Your task to perform on an android device: turn pop-ups on in chrome Image 0: 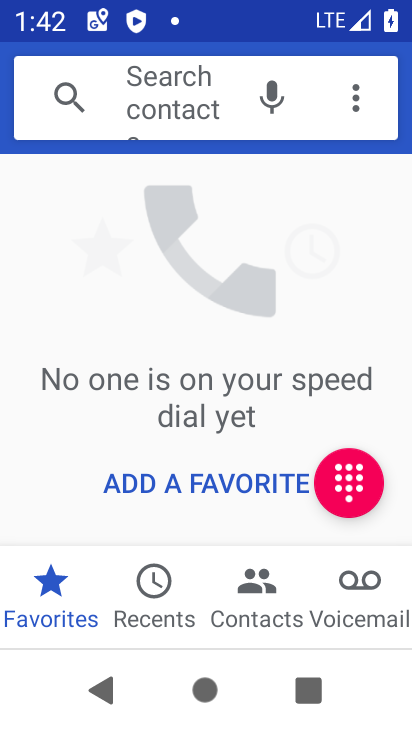
Step 0: press home button
Your task to perform on an android device: turn pop-ups on in chrome Image 1: 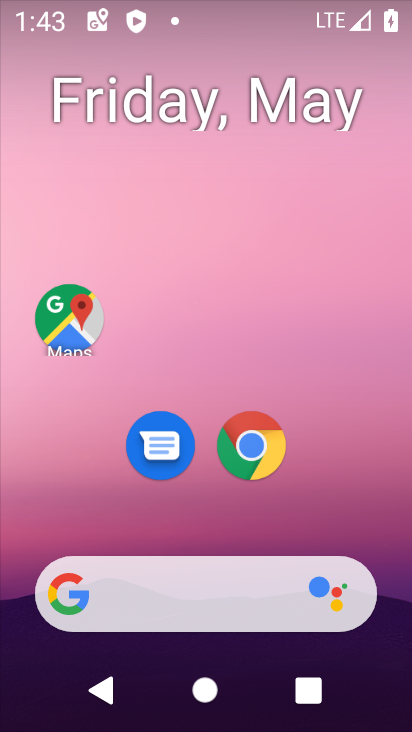
Step 1: click (248, 438)
Your task to perform on an android device: turn pop-ups on in chrome Image 2: 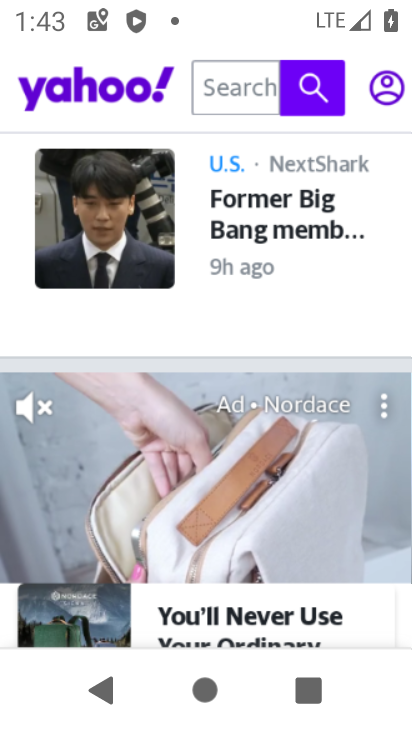
Step 2: drag from (350, 191) to (318, 583)
Your task to perform on an android device: turn pop-ups on in chrome Image 3: 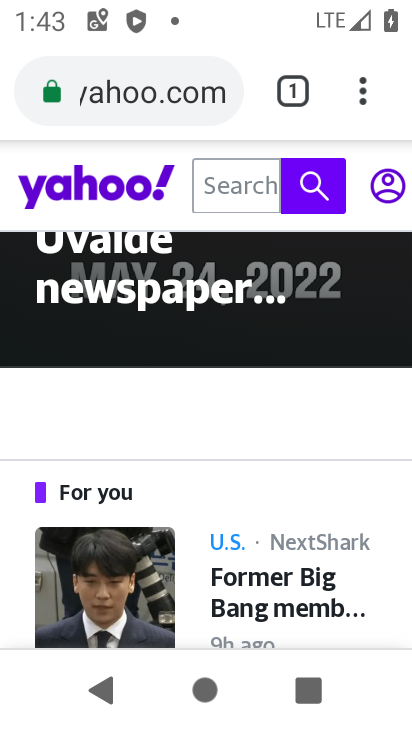
Step 3: click (362, 82)
Your task to perform on an android device: turn pop-ups on in chrome Image 4: 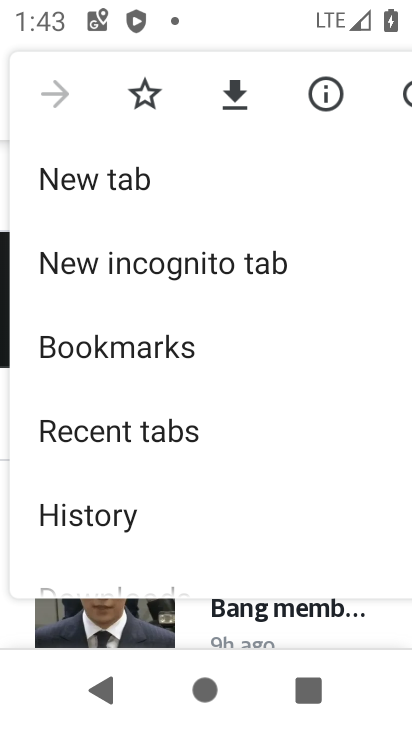
Step 4: drag from (212, 519) to (257, 93)
Your task to perform on an android device: turn pop-ups on in chrome Image 5: 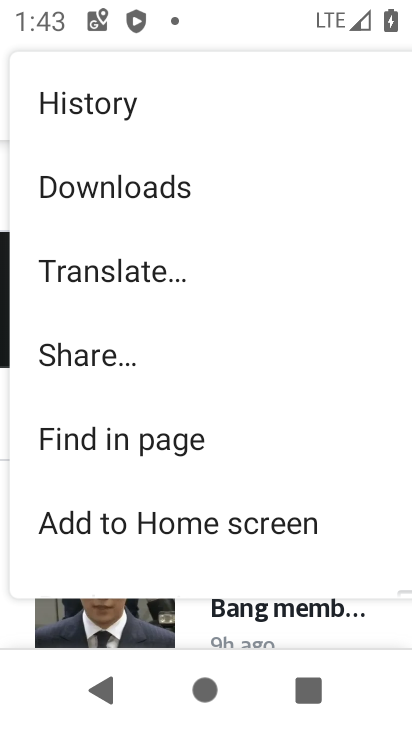
Step 5: drag from (173, 538) to (193, 142)
Your task to perform on an android device: turn pop-ups on in chrome Image 6: 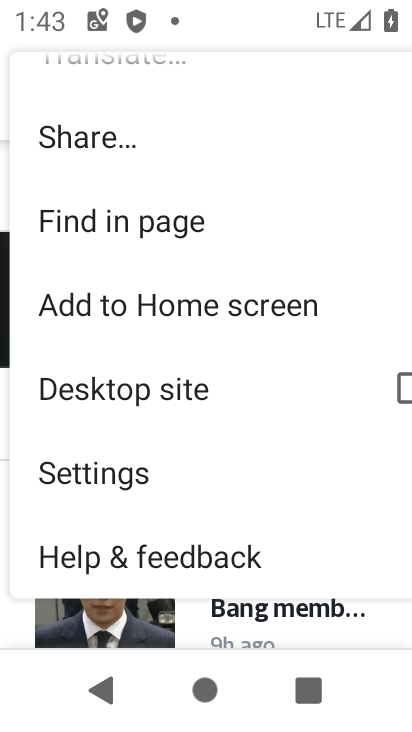
Step 6: click (162, 470)
Your task to perform on an android device: turn pop-ups on in chrome Image 7: 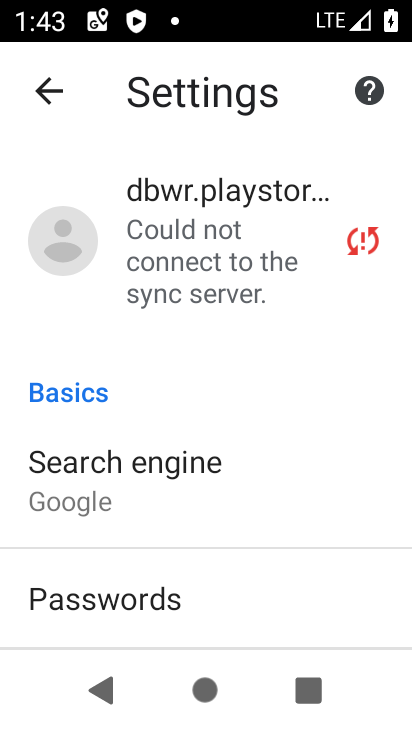
Step 7: drag from (218, 599) to (270, 80)
Your task to perform on an android device: turn pop-ups on in chrome Image 8: 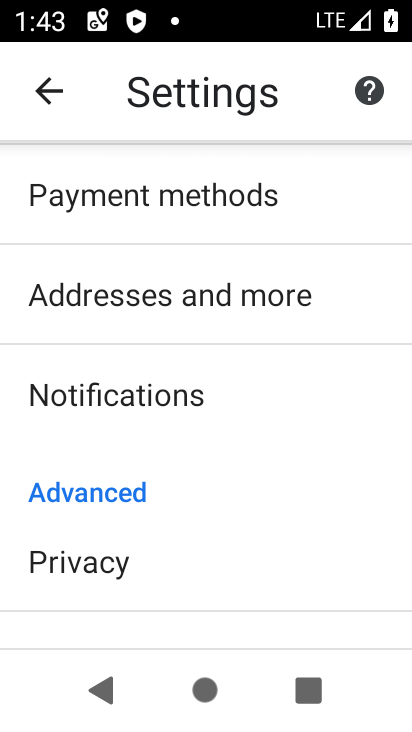
Step 8: drag from (192, 593) to (248, 121)
Your task to perform on an android device: turn pop-ups on in chrome Image 9: 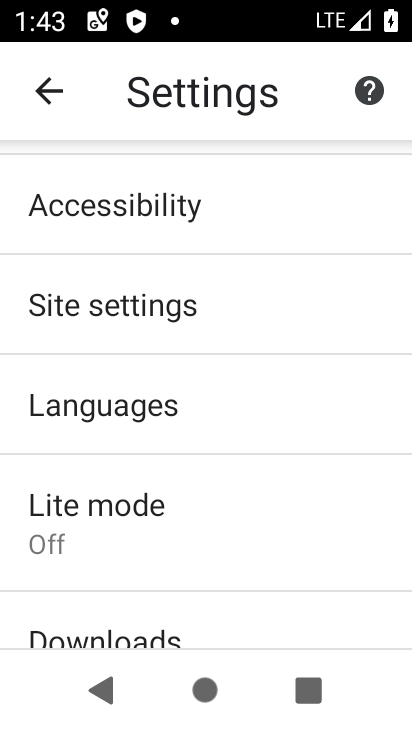
Step 9: click (213, 306)
Your task to perform on an android device: turn pop-ups on in chrome Image 10: 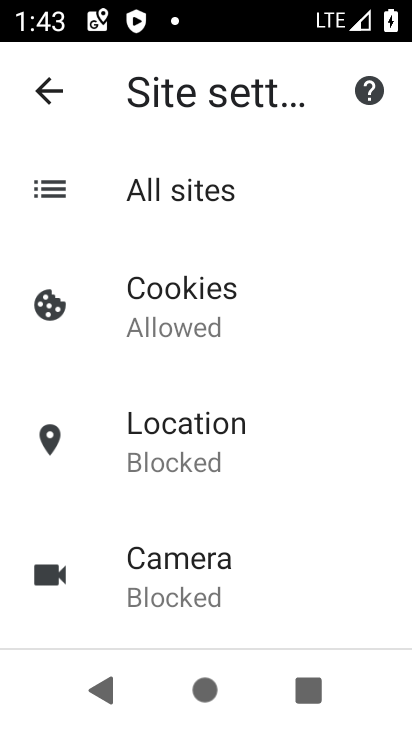
Step 10: drag from (247, 581) to (261, 191)
Your task to perform on an android device: turn pop-ups on in chrome Image 11: 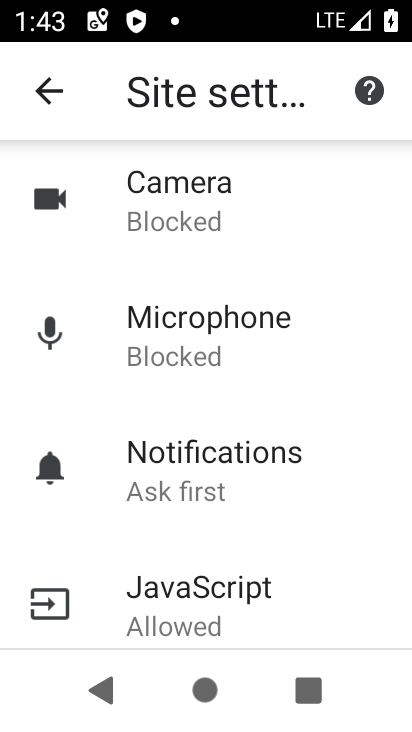
Step 11: drag from (271, 613) to (300, 193)
Your task to perform on an android device: turn pop-ups on in chrome Image 12: 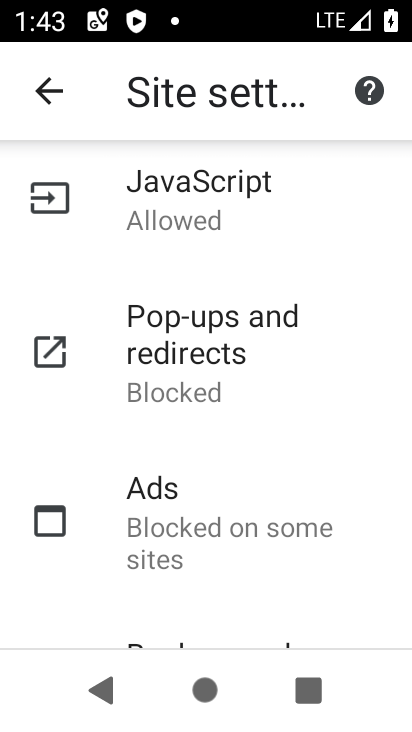
Step 12: click (263, 354)
Your task to perform on an android device: turn pop-ups on in chrome Image 13: 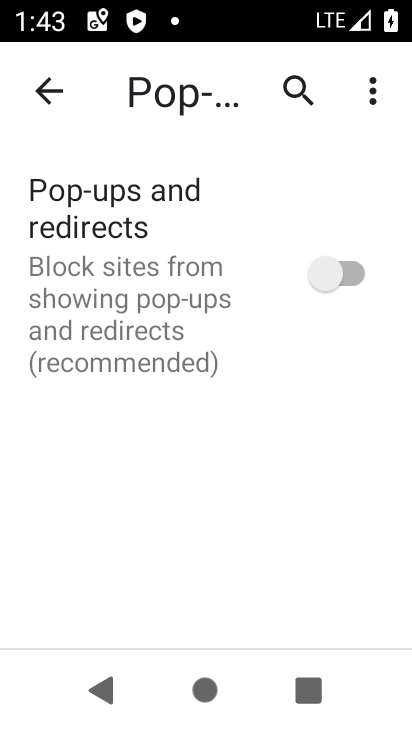
Step 13: click (351, 266)
Your task to perform on an android device: turn pop-ups on in chrome Image 14: 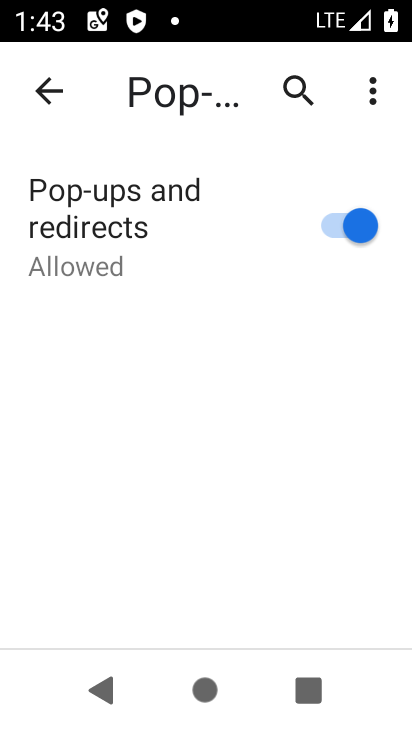
Step 14: task complete